Your task to perform on an android device: Go to Yahoo.com Image 0: 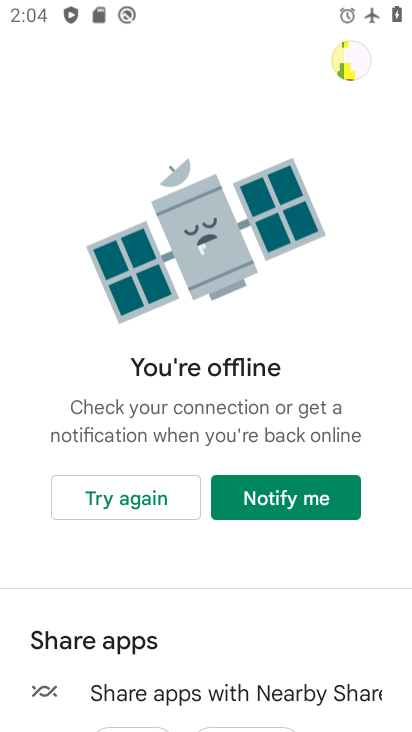
Step 0: press home button
Your task to perform on an android device: Go to Yahoo.com Image 1: 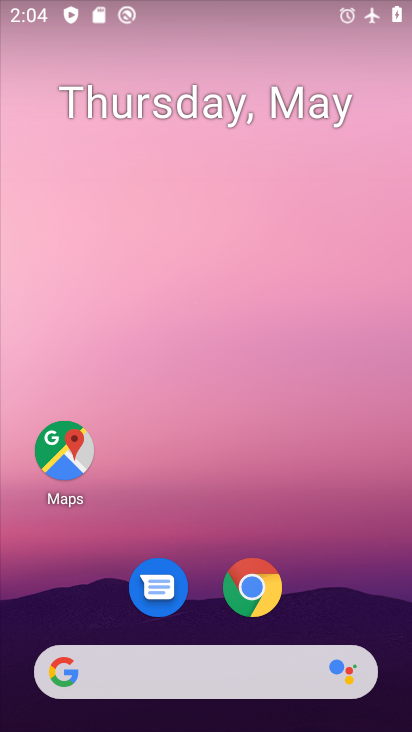
Step 1: click (256, 579)
Your task to perform on an android device: Go to Yahoo.com Image 2: 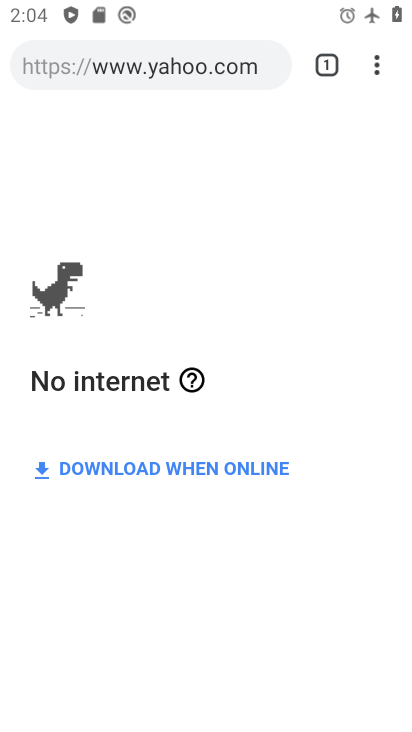
Step 2: click (370, 58)
Your task to perform on an android device: Go to Yahoo.com Image 3: 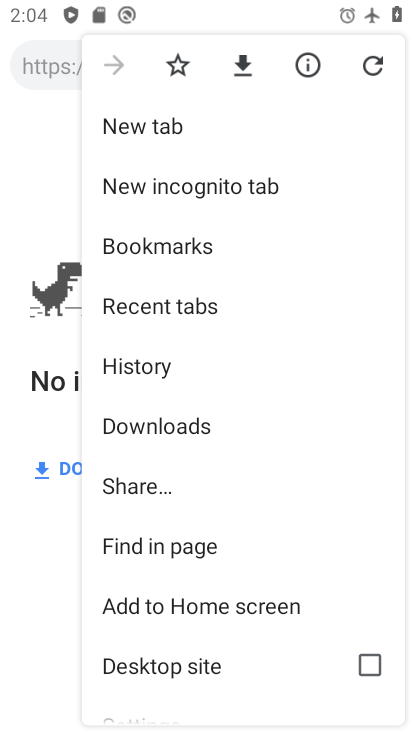
Step 3: click (158, 127)
Your task to perform on an android device: Go to Yahoo.com Image 4: 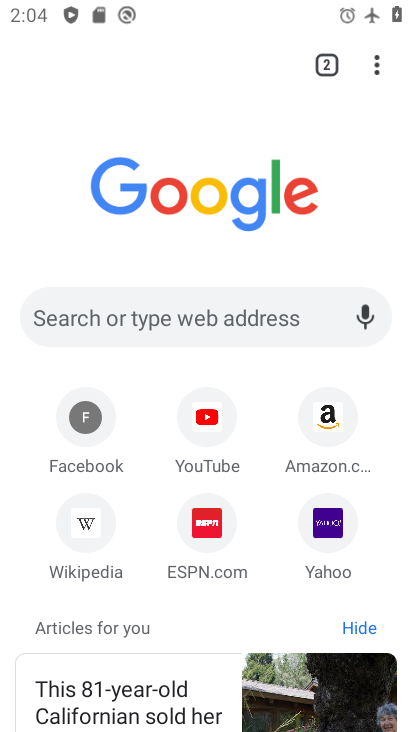
Step 4: click (330, 522)
Your task to perform on an android device: Go to Yahoo.com Image 5: 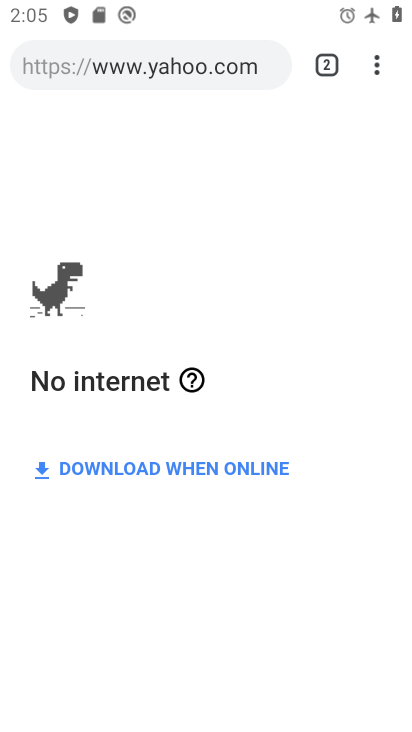
Step 5: task complete